Your task to perform on an android device: check data usage Image 0: 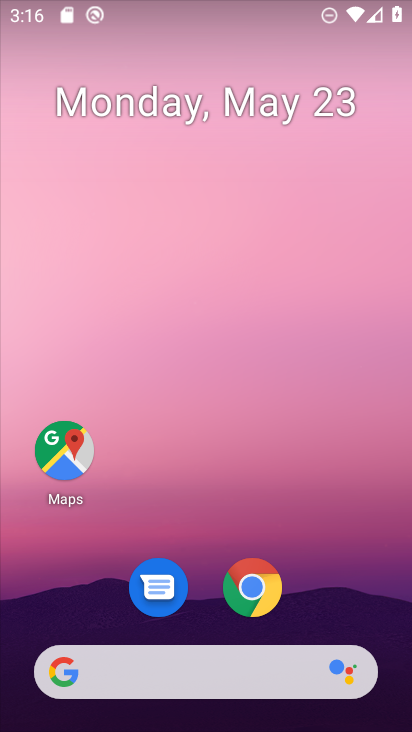
Step 0: drag from (206, 574) to (217, 9)
Your task to perform on an android device: check data usage Image 1: 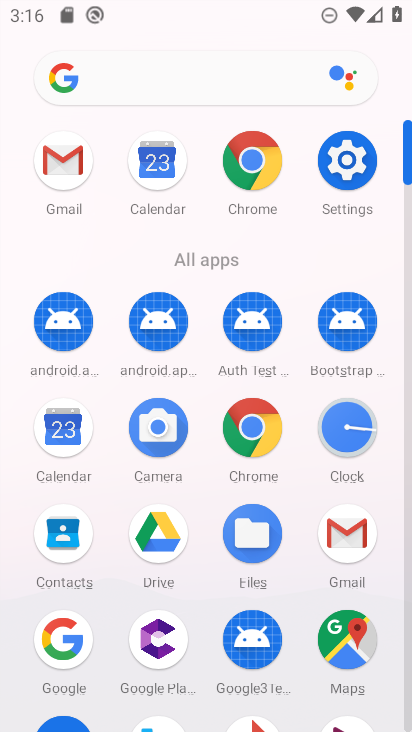
Step 1: click (355, 181)
Your task to perform on an android device: check data usage Image 2: 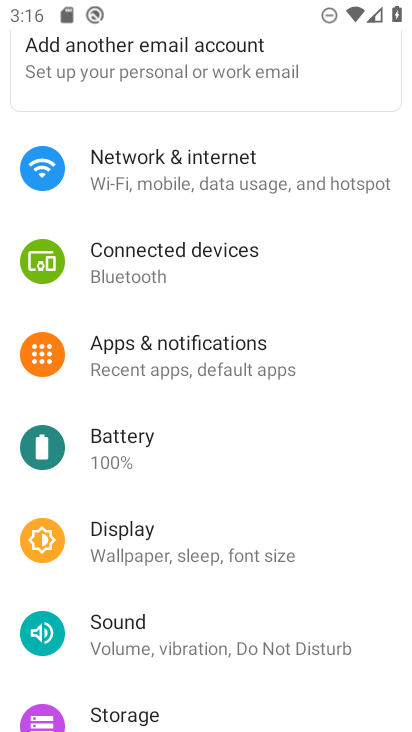
Step 2: click (221, 181)
Your task to perform on an android device: check data usage Image 3: 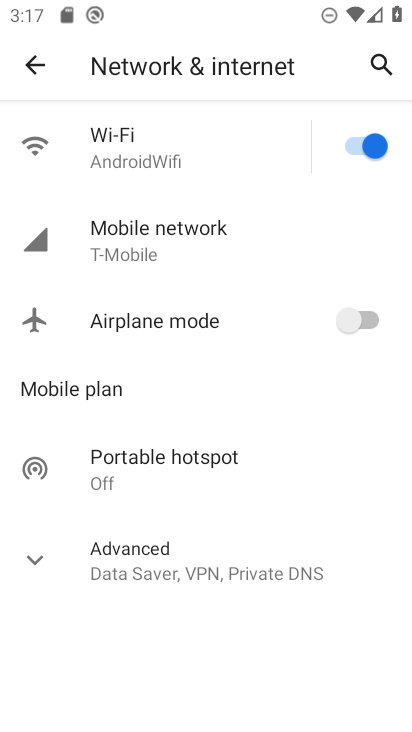
Step 3: click (181, 245)
Your task to perform on an android device: check data usage Image 4: 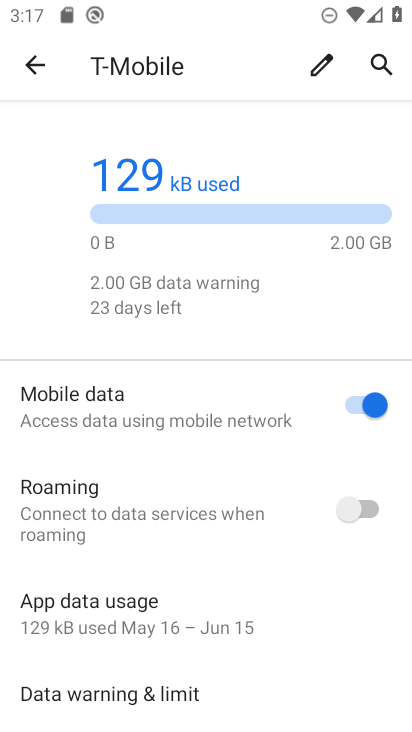
Step 4: drag from (138, 547) to (152, 408)
Your task to perform on an android device: check data usage Image 5: 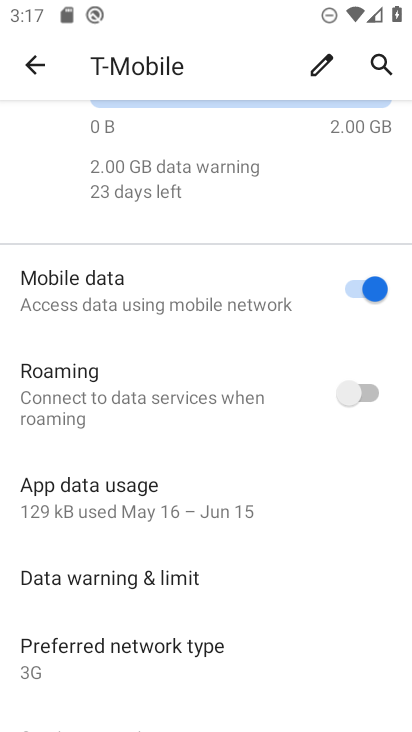
Step 5: click (131, 506)
Your task to perform on an android device: check data usage Image 6: 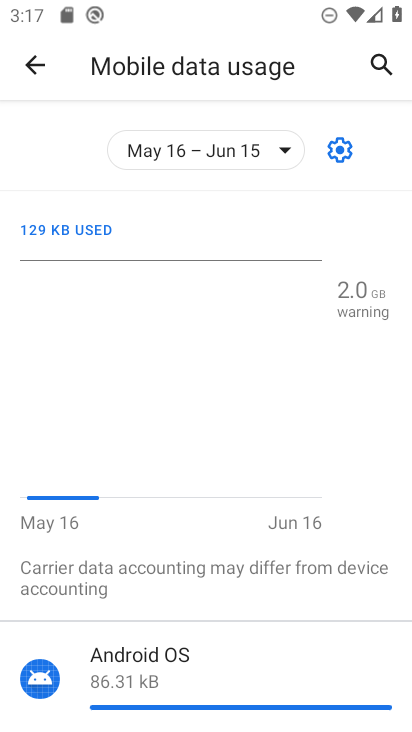
Step 6: task complete